Your task to perform on an android device: Open the Play Movies app and select the watchlist tab. Image 0: 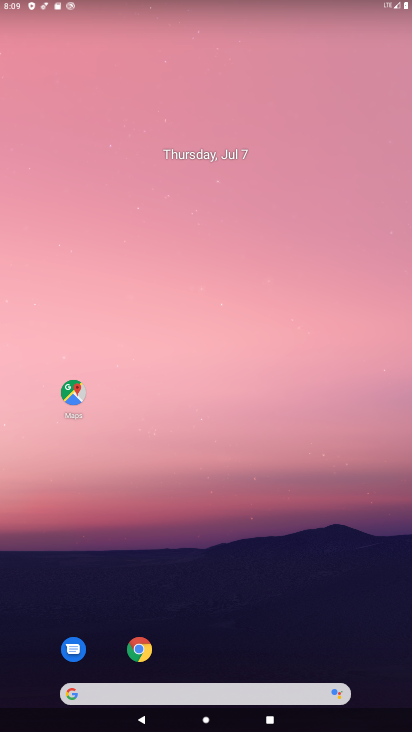
Step 0: drag from (254, 605) to (221, 145)
Your task to perform on an android device: Open the Play Movies app and select the watchlist tab. Image 1: 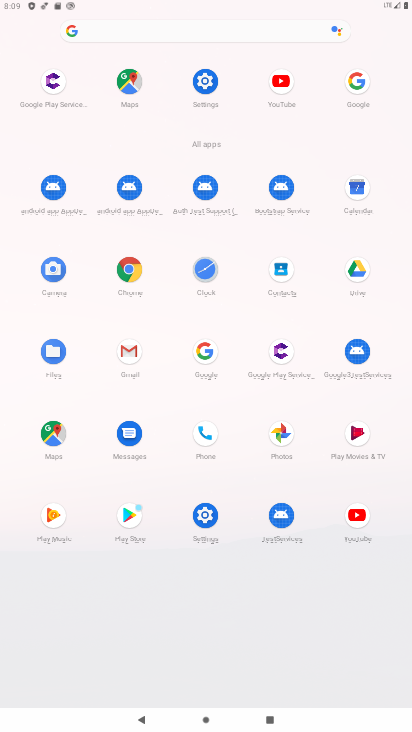
Step 1: click (351, 433)
Your task to perform on an android device: Open the Play Movies app and select the watchlist tab. Image 2: 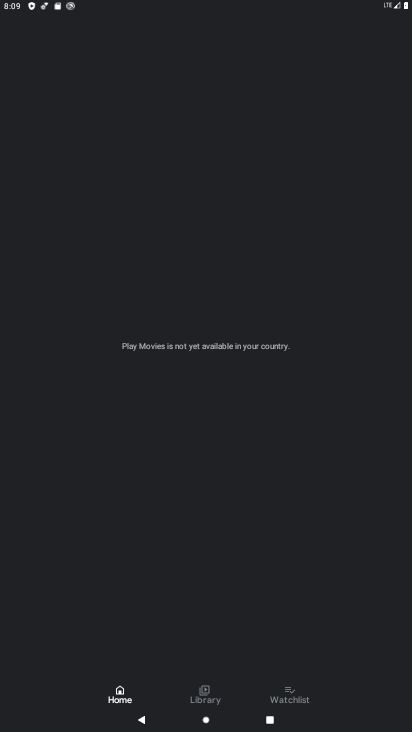
Step 2: click (282, 692)
Your task to perform on an android device: Open the Play Movies app and select the watchlist tab. Image 3: 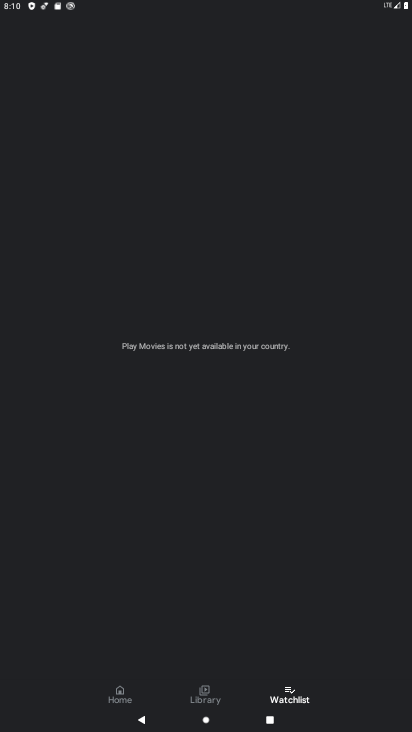
Step 3: task complete